Your task to perform on an android device: Open Amazon Image 0: 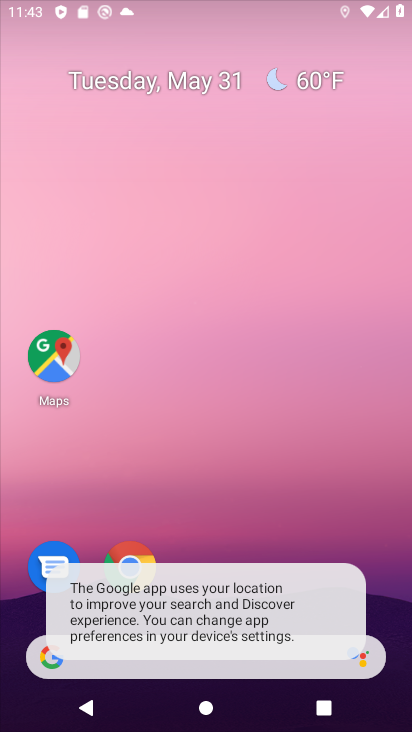
Step 0: drag from (197, 641) to (183, 169)
Your task to perform on an android device: Open Amazon Image 1: 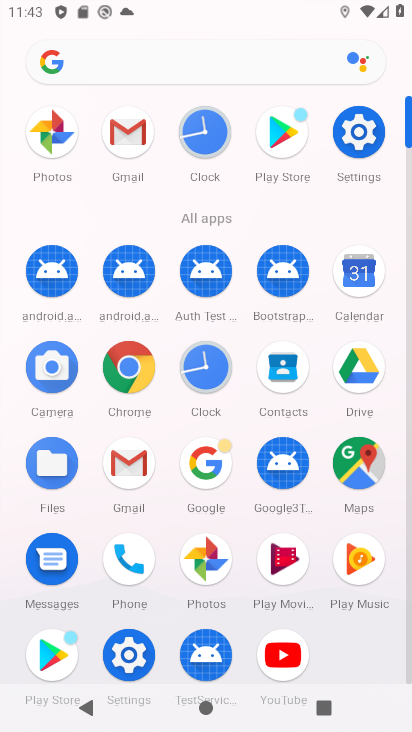
Step 1: click (126, 361)
Your task to perform on an android device: Open Amazon Image 2: 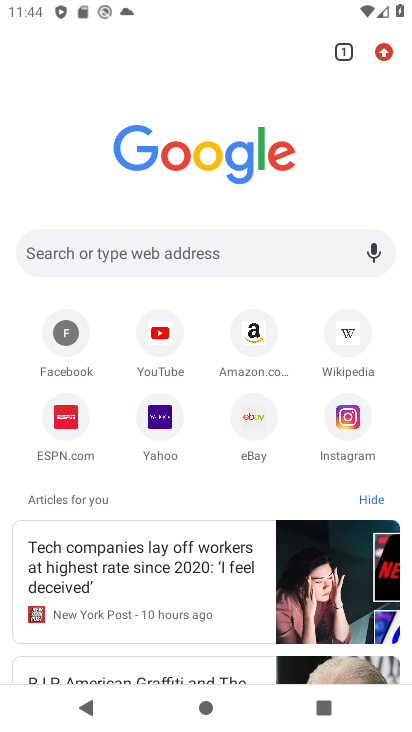
Step 2: click (256, 334)
Your task to perform on an android device: Open Amazon Image 3: 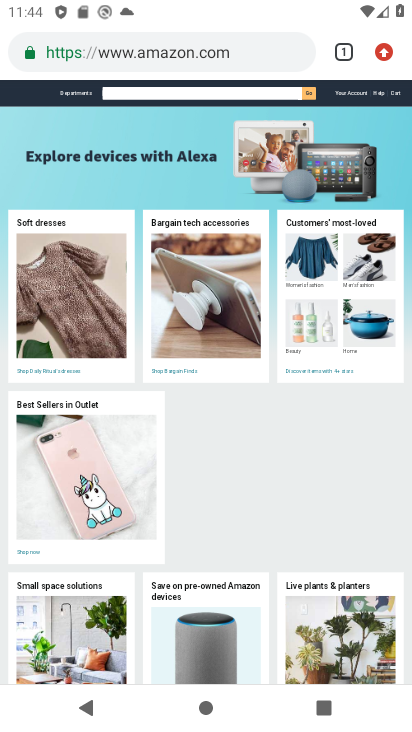
Step 3: task complete